Your task to perform on an android device: Go to ESPN.com Image 0: 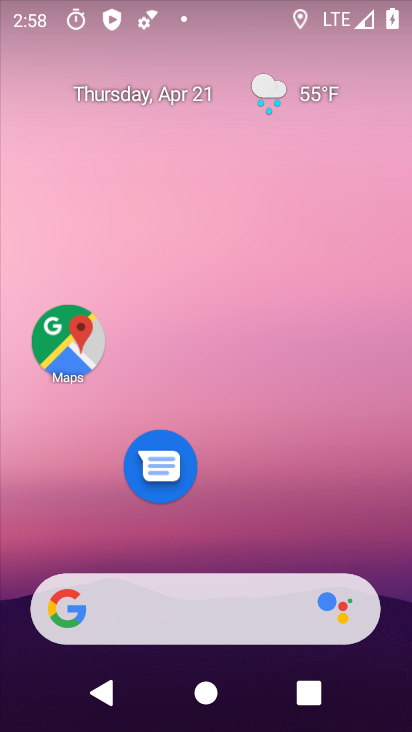
Step 0: click (311, 541)
Your task to perform on an android device: Go to ESPN.com Image 1: 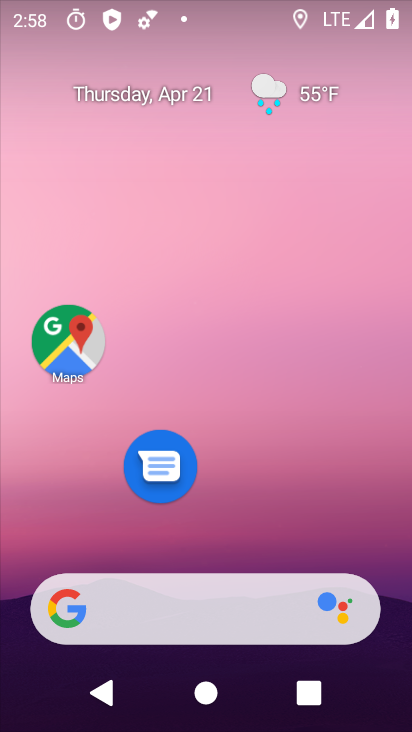
Step 1: drag from (283, 556) to (242, 3)
Your task to perform on an android device: Go to ESPN.com Image 2: 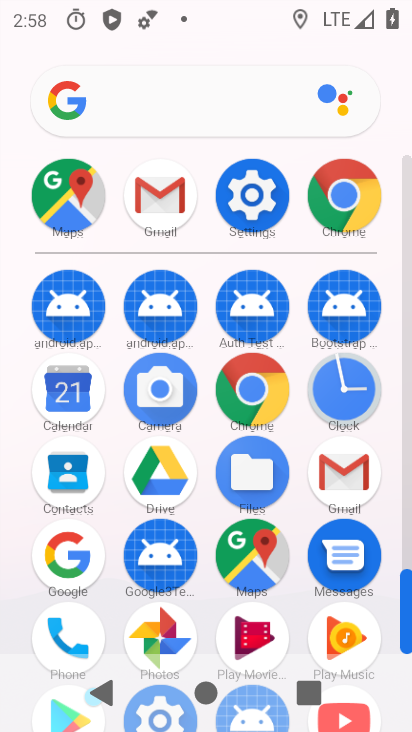
Step 2: click (271, 391)
Your task to perform on an android device: Go to ESPN.com Image 3: 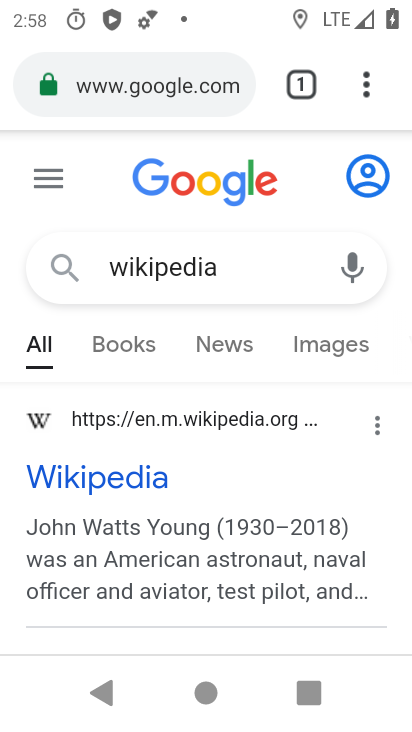
Step 3: click (208, 83)
Your task to perform on an android device: Go to ESPN.com Image 4: 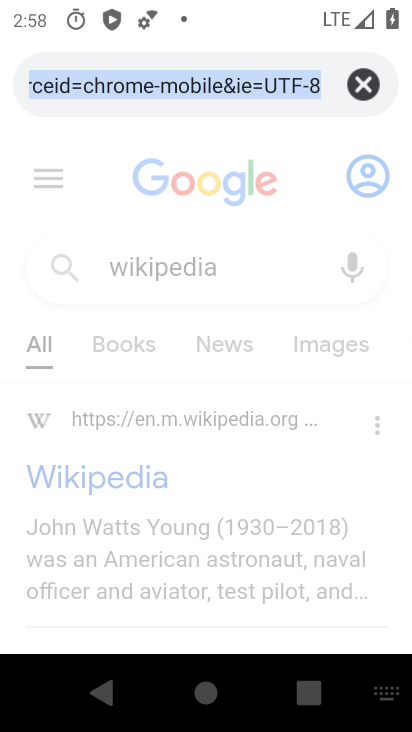
Step 4: click (363, 84)
Your task to perform on an android device: Go to ESPN.com Image 5: 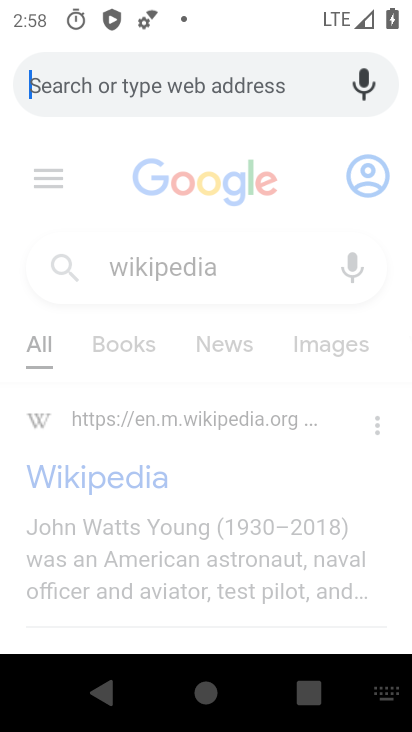
Step 5: type "espn.com"
Your task to perform on an android device: Go to ESPN.com Image 6: 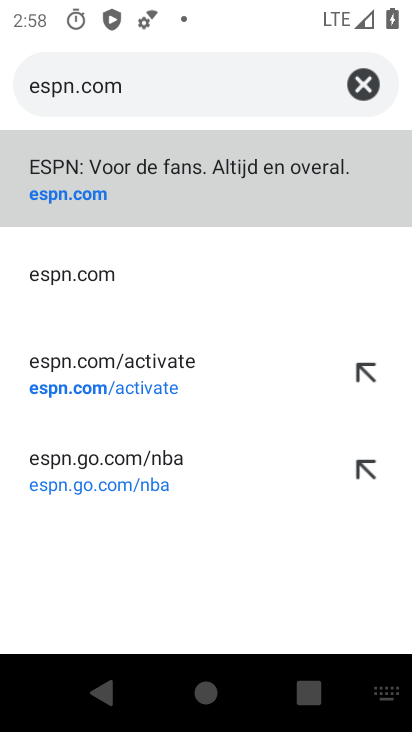
Step 6: click (206, 167)
Your task to perform on an android device: Go to ESPN.com Image 7: 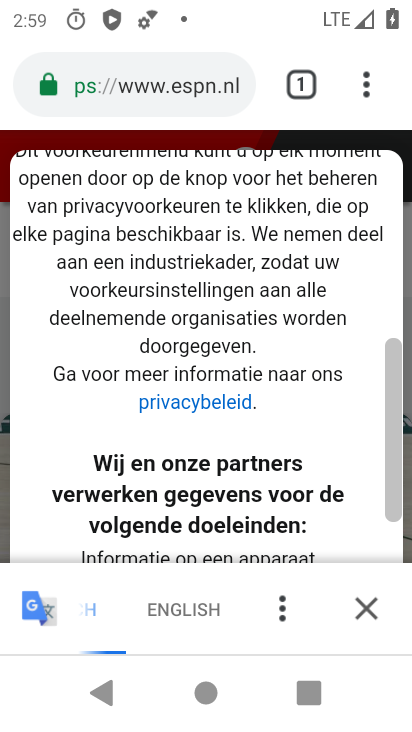
Step 7: task complete